Your task to perform on an android device: Go to Amazon Image 0: 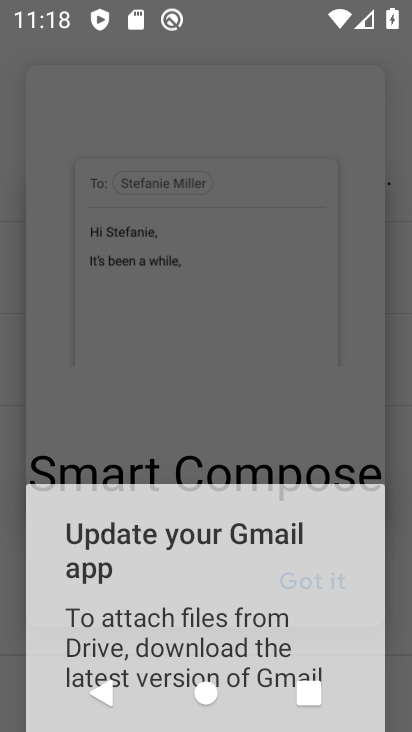
Step 0: press back button
Your task to perform on an android device: Go to Amazon Image 1: 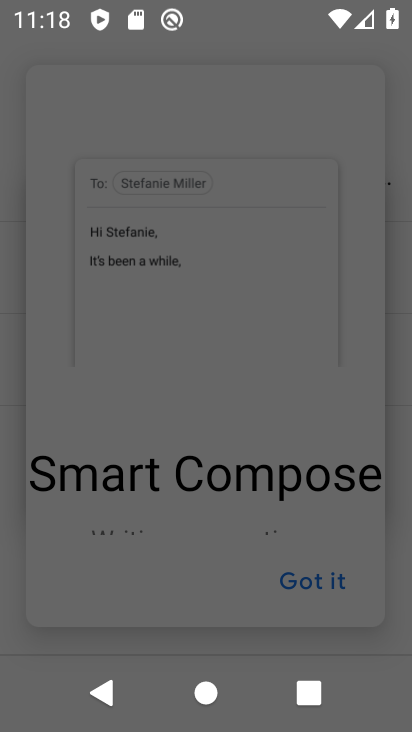
Step 1: press home button
Your task to perform on an android device: Go to Amazon Image 2: 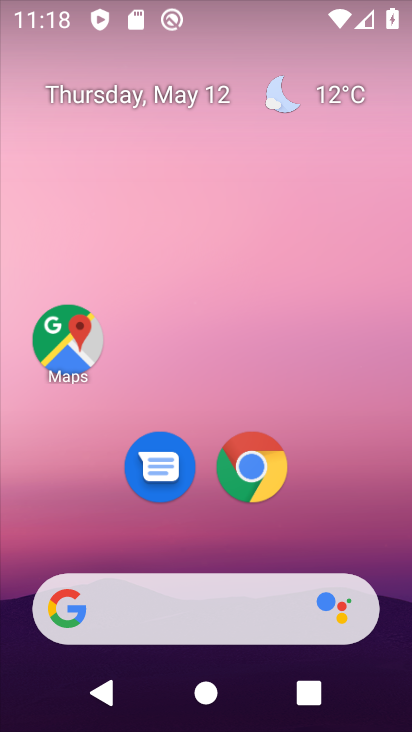
Step 2: drag from (360, 517) to (263, 9)
Your task to perform on an android device: Go to Amazon Image 3: 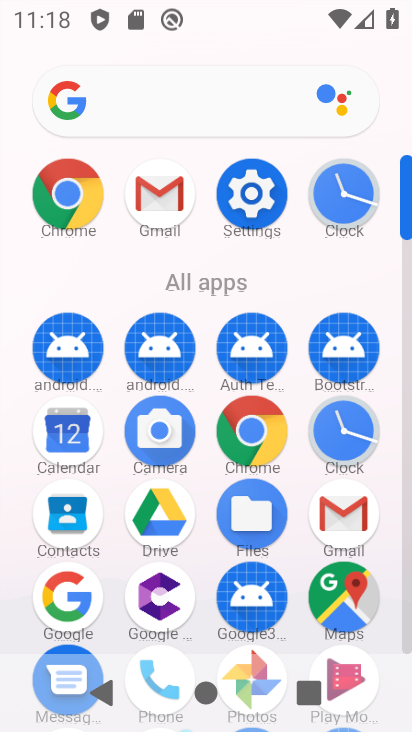
Step 3: click (63, 188)
Your task to perform on an android device: Go to Amazon Image 4: 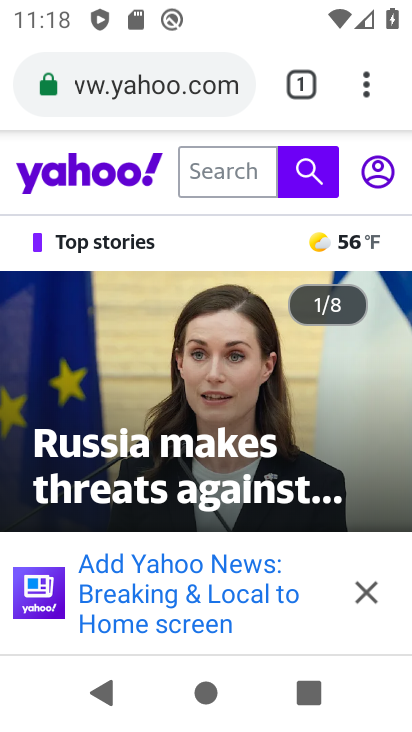
Step 4: click (140, 87)
Your task to perform on an android device: Go to Amazon Image 5: 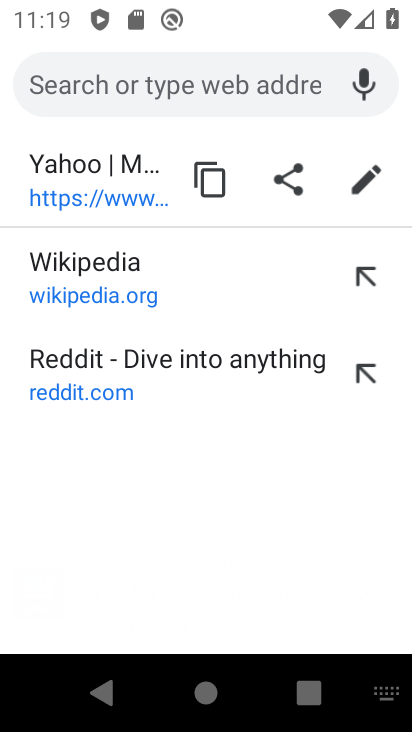
Step 5: type " Amazon"
Your task to perform on an android device: Go to Amazon Image 6: 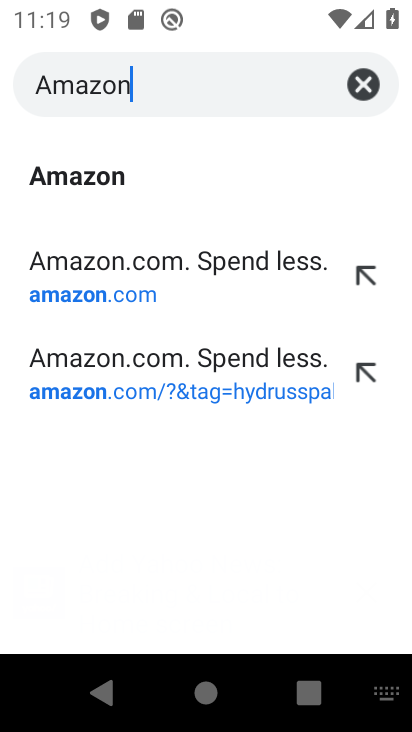
Step 6: type ""
Your task to perform on an android device: Go to Amazon Image 7: 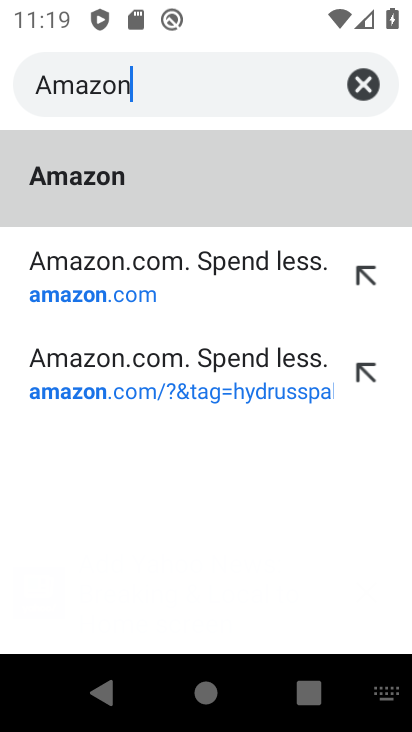
Step 7: click (156, 150)
Your task to perform on an android device: Go to Amazon Image 8: 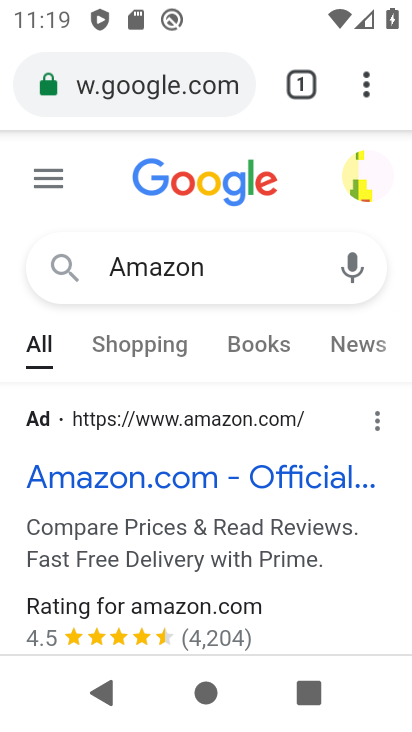
Step 8: click (167, 477)
Your task to perform on an android device: Go to Amazon Image 9: 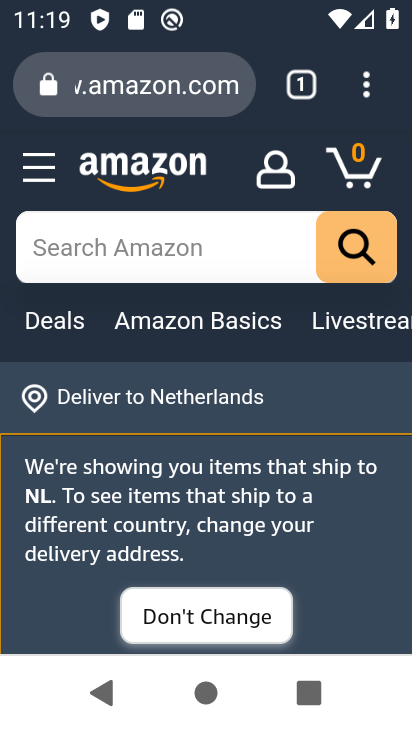
Step 9: task complete